Your task to perform on an android device: Open Youtube and go to "Your channel" Image 0: 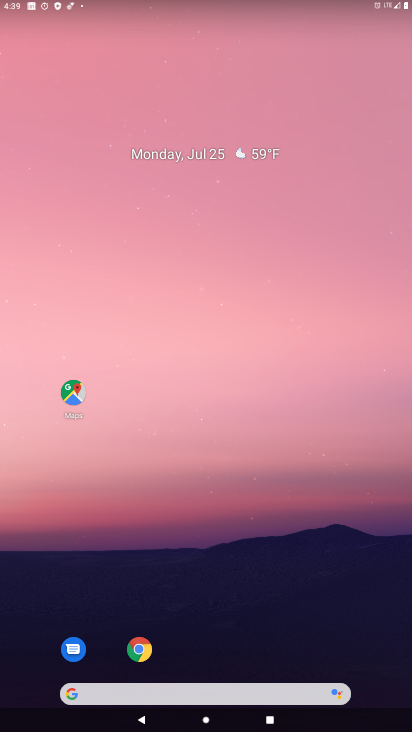
Step 0: drag from (312, 631) to (256, 216)
Your task to perform on an android device: Open Youtube and go to "Your channel" Image 1: 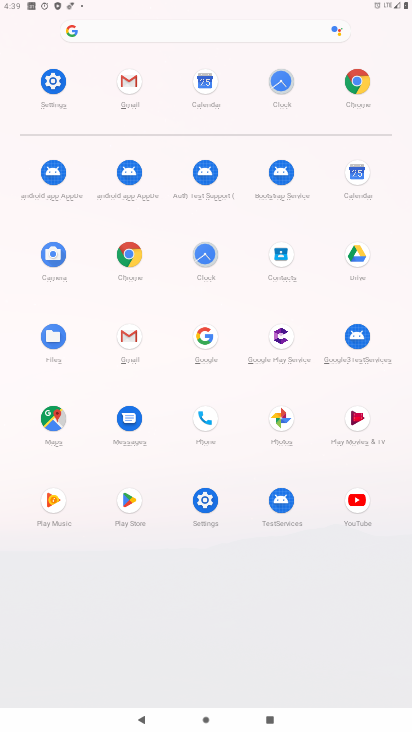
Step 1: click (362, 508)
Your task to perform on an android device: Open Youtube and go to "Your channel" Image 2: 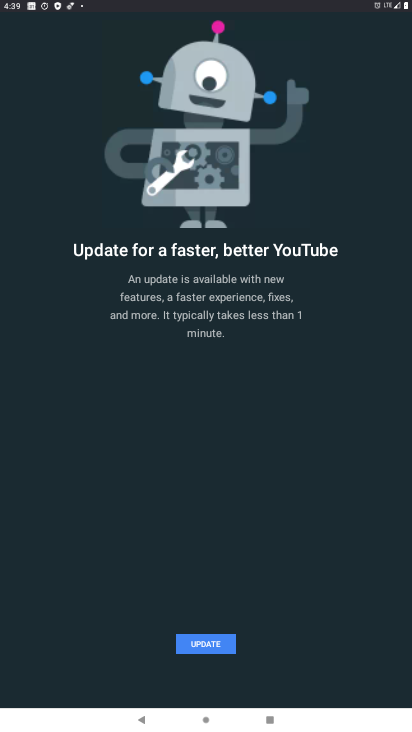
Step 2: click (214, 657)
Your task to perform on an android device: Open Youtube and go to "Your channel" Image 3: 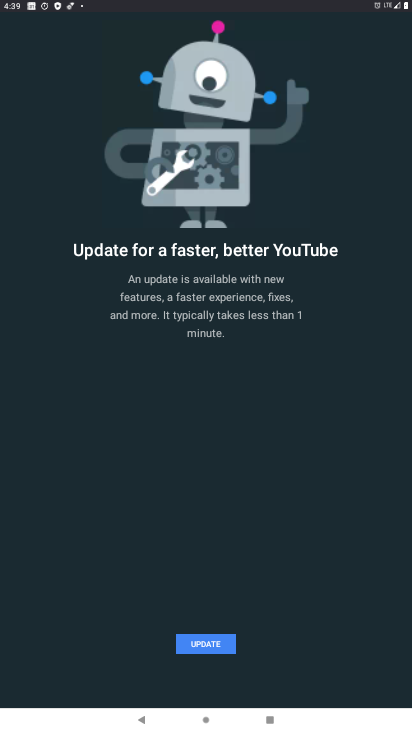
Step 3: click (208, 643)
Your task to perform on an android device: Open Youtube and go to "Your channel" Image 4: 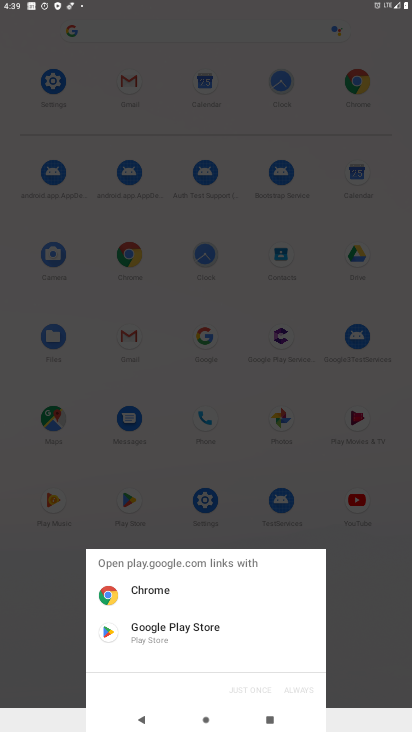
Step 4: click (223, 631)
Your task to perform on an android device: Open Youtube and go to "Your channel" Image 5: 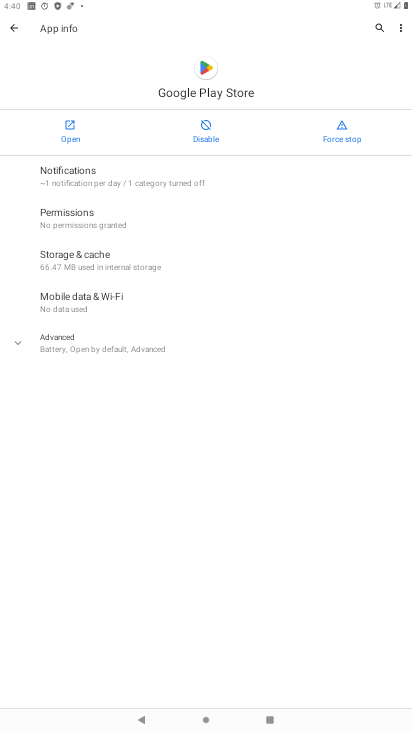
Step 5: click (22, 37)
Your task to perform on an android device: Open Youtube and go to "Your channel" Image 6: 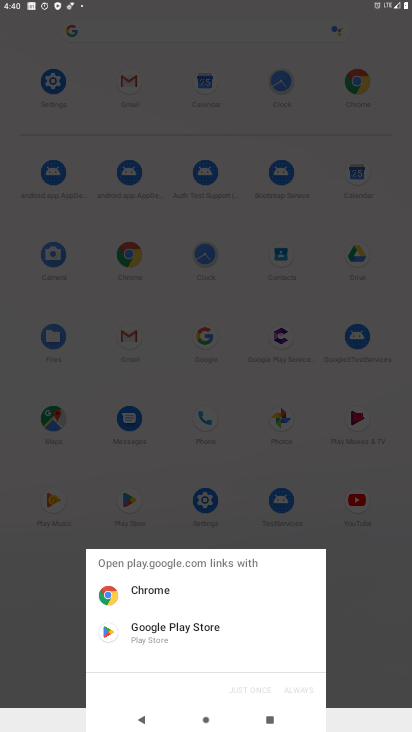
Step 6: click (177, 628)
Your task to perform on an android device: Open Youtube and go to "Your channel" Image 7: 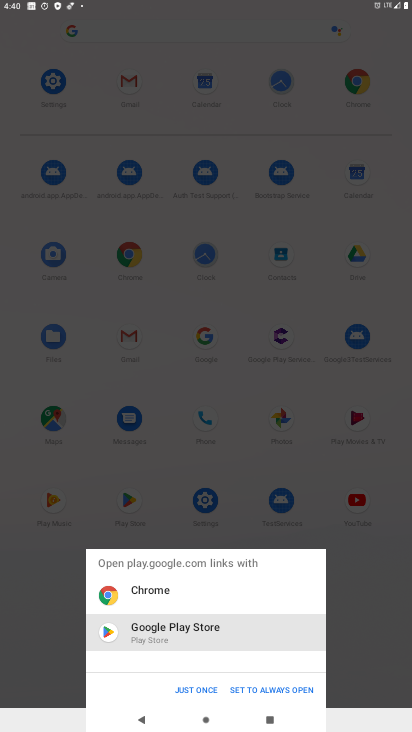
Step 7: click (210, 685)
Your task to perform on an android device: Open Youtube and go to "Your channel" Image 8: 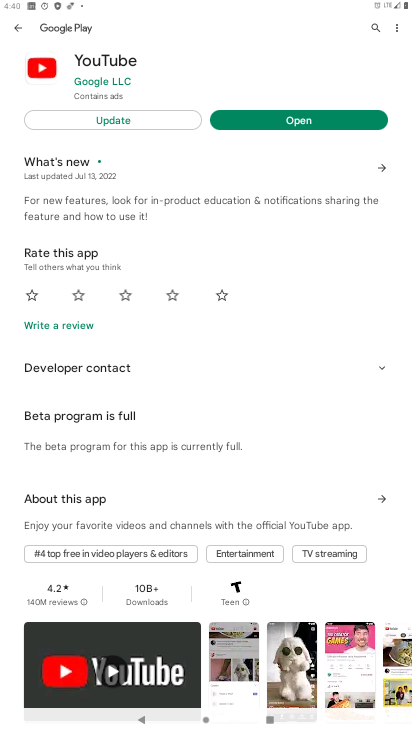
Step 8: click (176, 112)
Your task to perform on an android device: Open Youtube and go to "Your channel" Image 9: 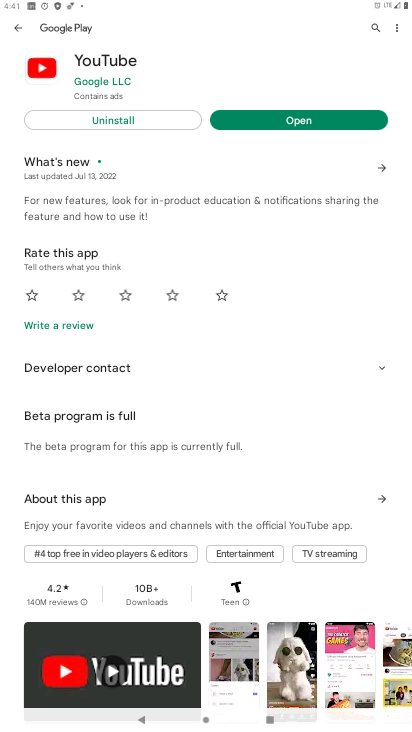
Step 9: click (298, 114)
Your task to perform on an android device: Open Youtube and go to "Your channel" Image 10: 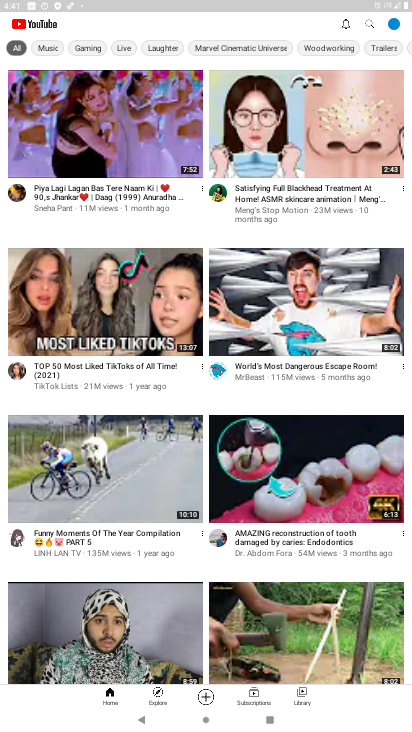
Step 10: click (391, 17)
Your task to perform on an android device: Open Youtube and go to "Your channel" Image 11: 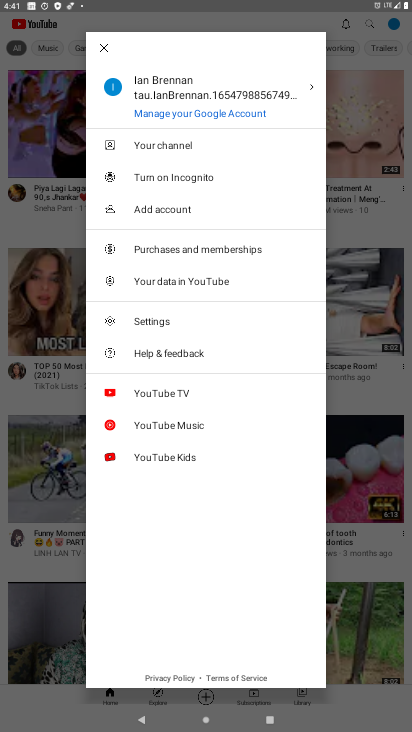
Step 11: click (234, 146)
Your task to perform on an android device: Open Youtube and go to "Your channel" Image 12: 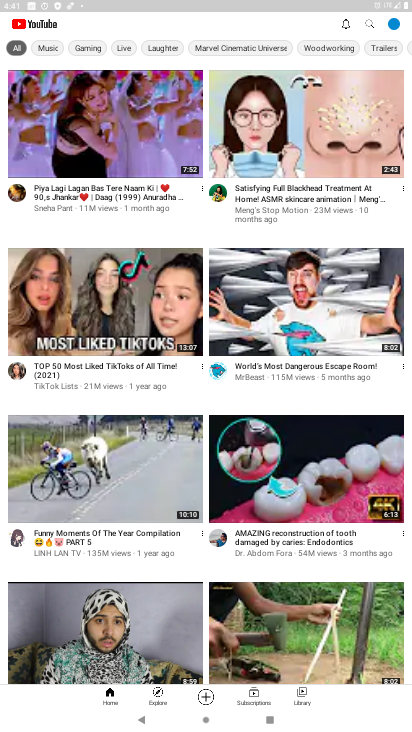
Step 12: task complete